Your task to perform on an android device: Search for vegetarian restaurants on Maps Image 0: 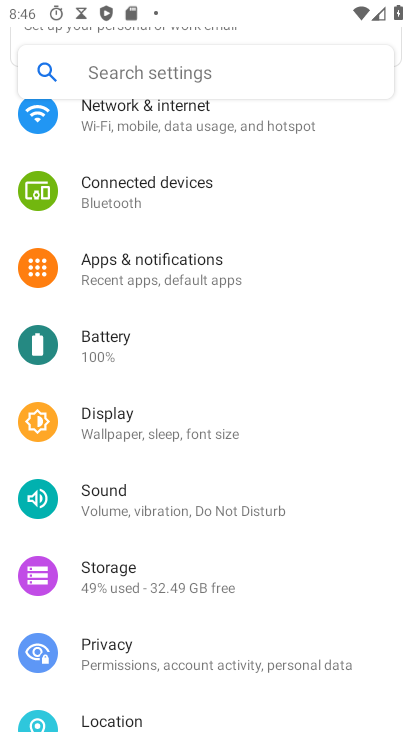
Step 0: press back button
Your task to perform on an android device: Search for vegetarian restaurants on Maps Image 1: 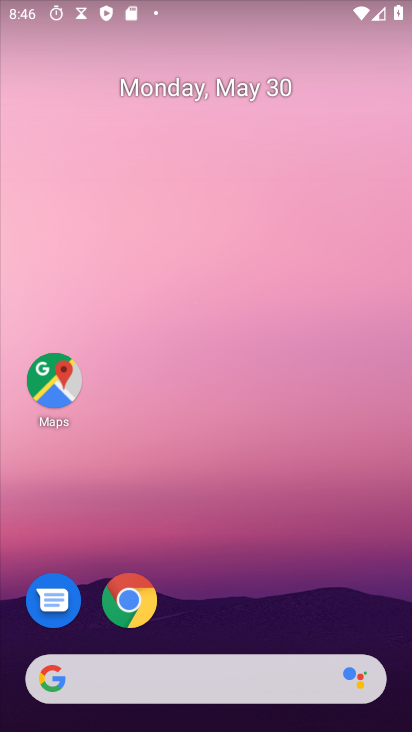
Step 1: drag from (252, 477) to (236, 17)
Your task to perform on an android device: Search for vegetarian restaurants on Maps Image 2: 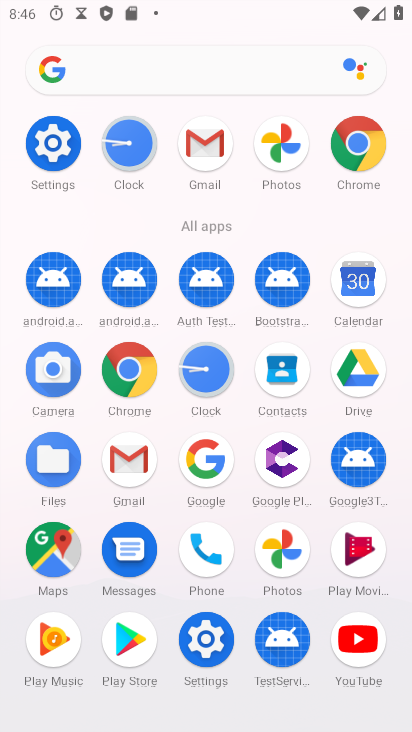
Step 2: drag from (0, 438) to (5, 180)
Your task to perform on an android device: Search for vegetarian restaurants on Maps Image 3: 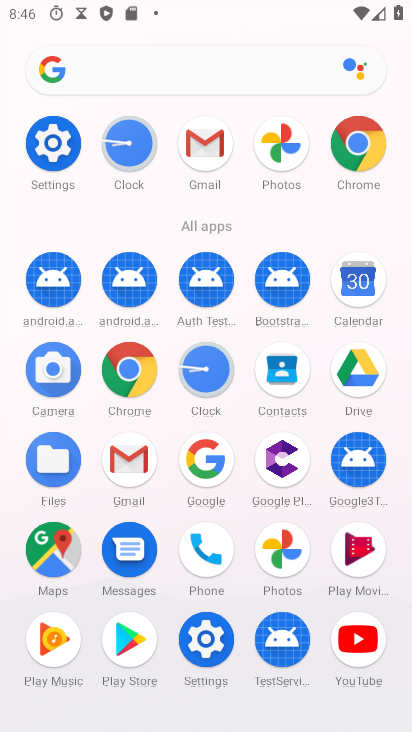
Step 3: click (53, 548)
Your task to perform on an android device: Search for vegetarian restaurants on Maps Image 4: 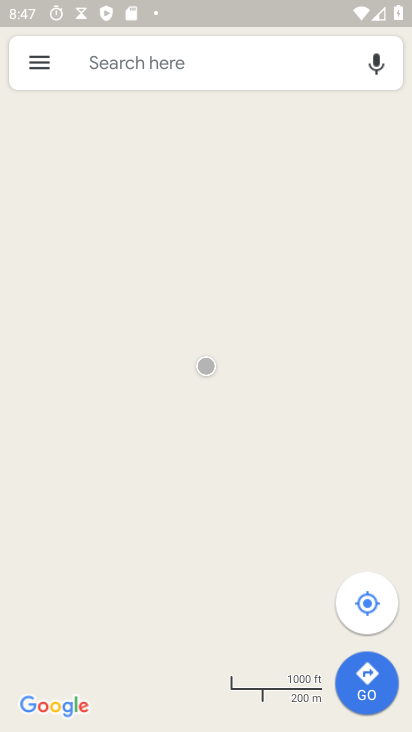
Step 4: click (211, 54)
Your task to perform on an android device: Search for vegetarian restaurants on Maps Image 5: 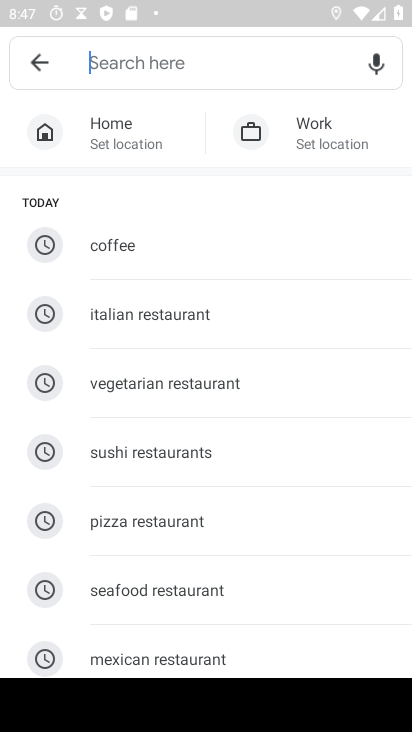
Step 5: click (199, 387)
Your task to perform on an android device: Search for vegetarian restaurants on Maps Image 6: 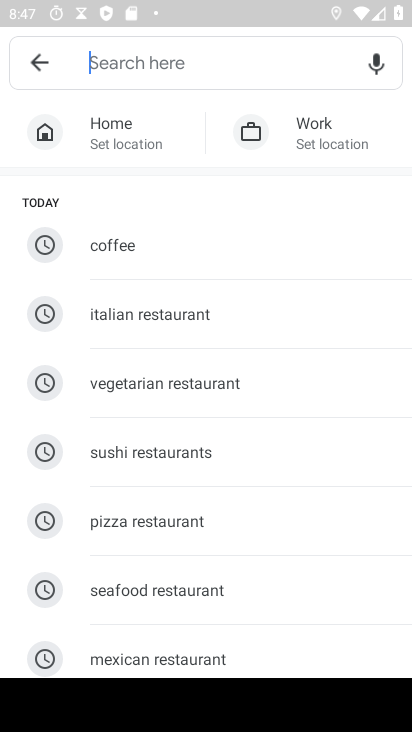
Step 6: type "vegetarian restaurants "
Your task to perform on an android device: Search for vegetarian restaurants on Maps Image 7: 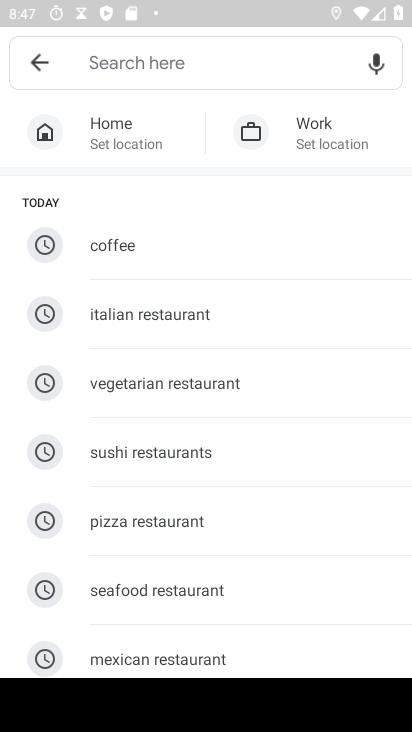
Step 7: click (199, 387)
Your task to perform on an android device: Search for vegetarian restaurants on Maps Image 8: 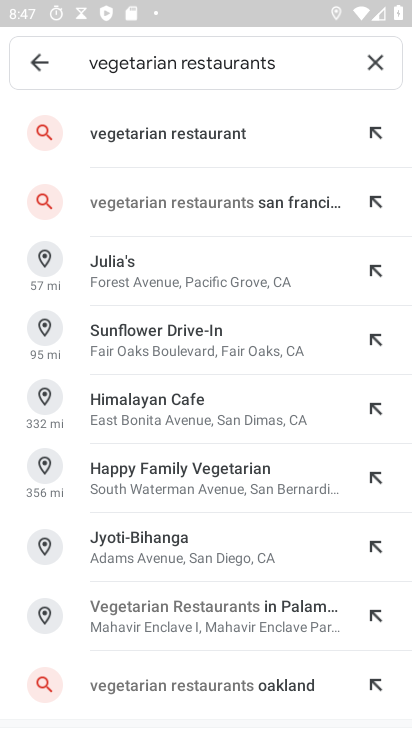
Step 8: click (202, 127)
Your task to perform on an android device: Search for vegetarian restaurants on Maps Image 9: 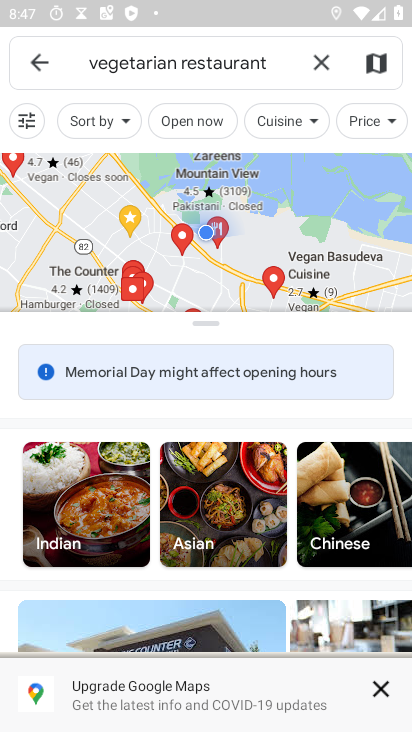
Step 9: task complete